Your task to perform on an android device: Do I have any events today? Image 0: 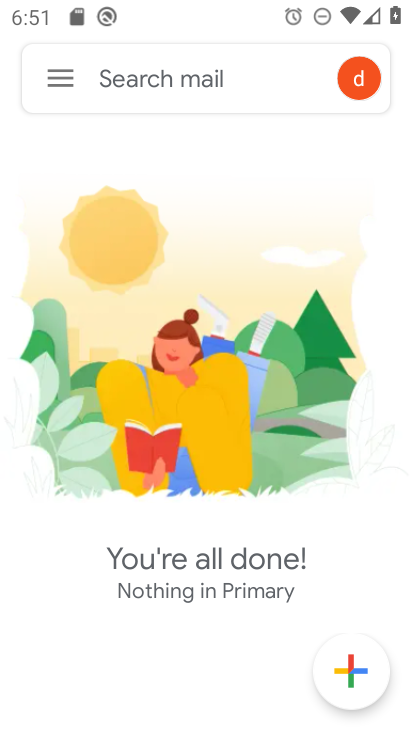
Step 0: press home button
Your task to perform on an android device: Do I have any events today? Image 1: 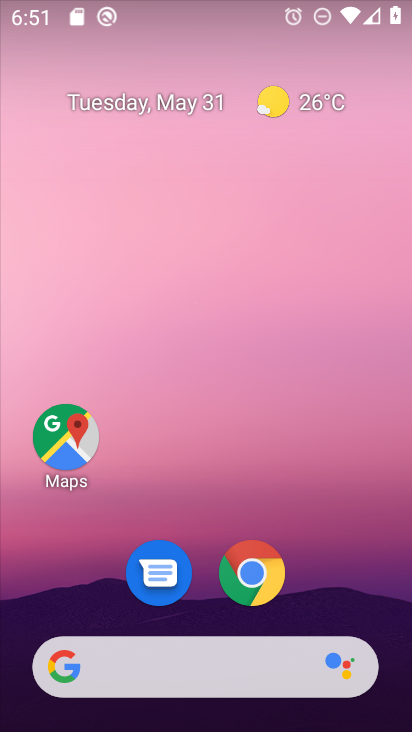
Step 1: drag from (393, 659) to (351, 53)
Your task to perform on an android device: Do I have any events today? Image 2: 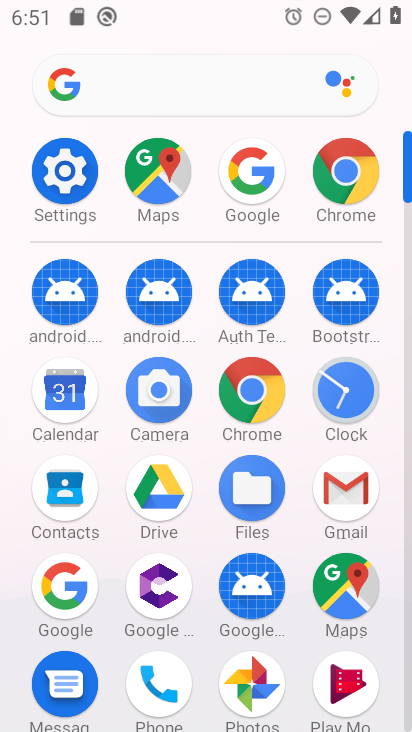
Step 2: click (79, 403)
Your task to perform on an android device: Do I have any events today? Image 3: 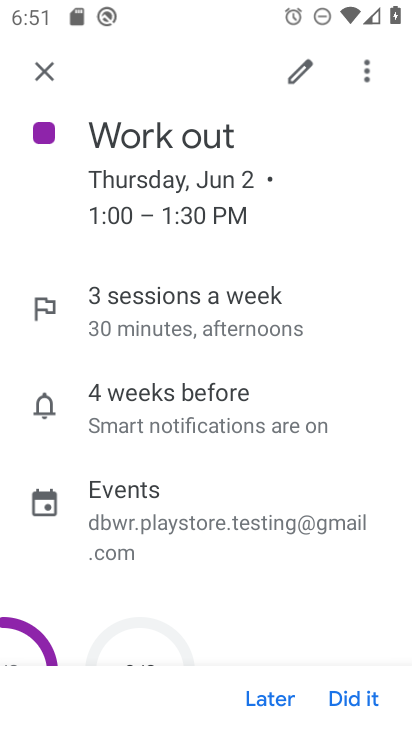
Step 3: press back button
Your task to perform on an android device: Do I have any events today? Image 4: 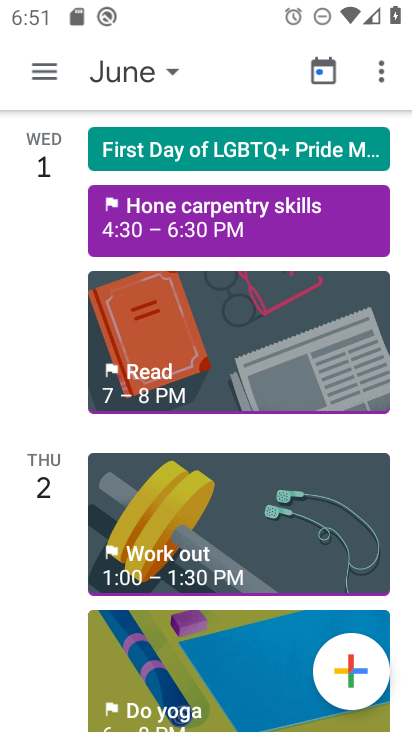
Step 4: click (44, 62)
Your task to perform on an android device: Do I have any events today? Image 5: 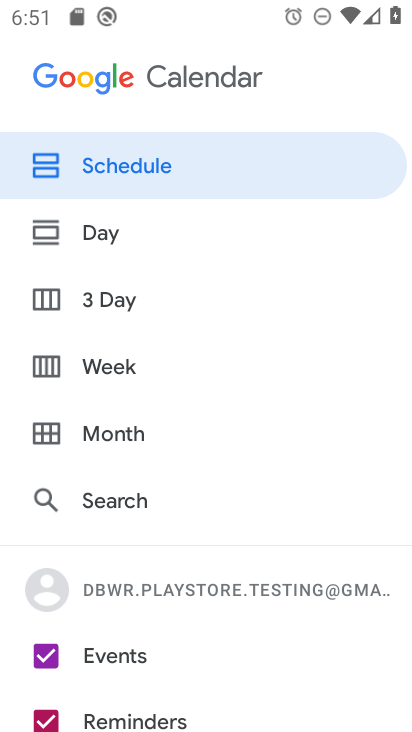
Step 5: press back button
Your task to perform on an android device: Do I have any events today? Image 6: 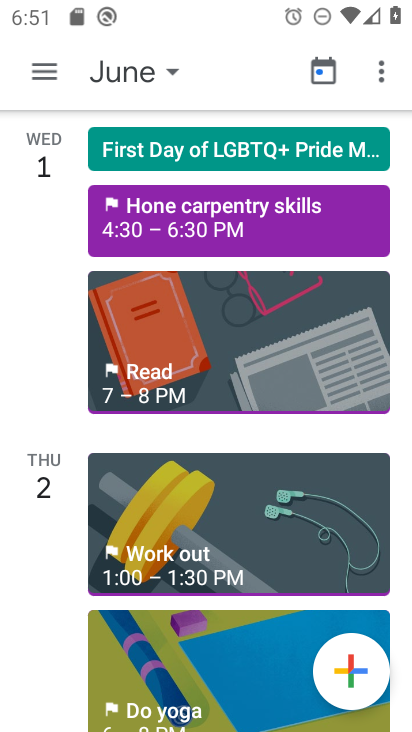
Step 6: click (144, 79)
Your task to perform on an android device: Do I have any events today? Image 7: 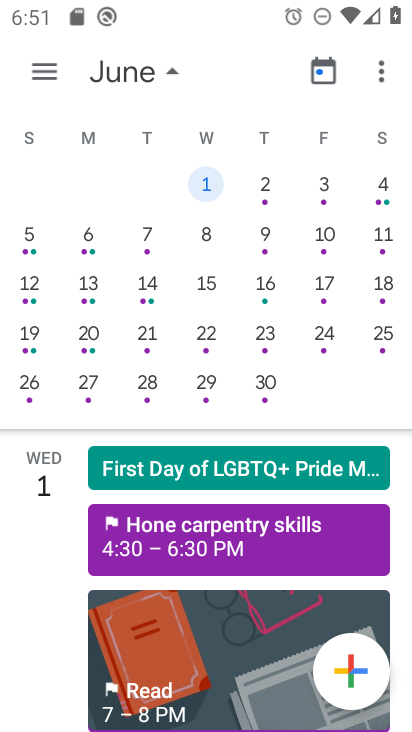
Step 7: click (205, 170)
Your task to perform on an android device: Do I have any events today? Image 8: 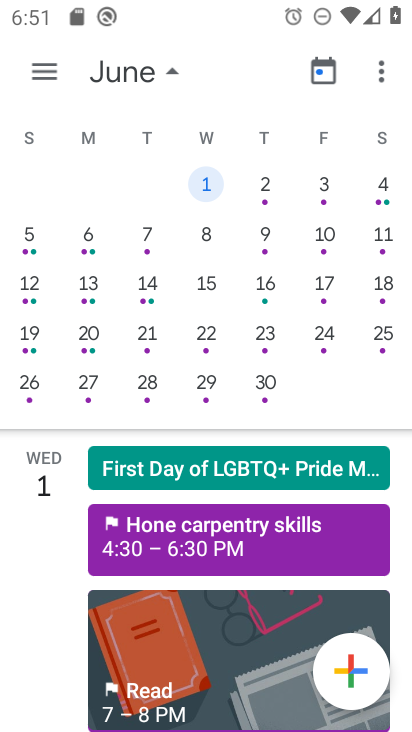
Step 8: click (262, 630)
Your task to perform on an android device: Do I have any events today? Image 9: 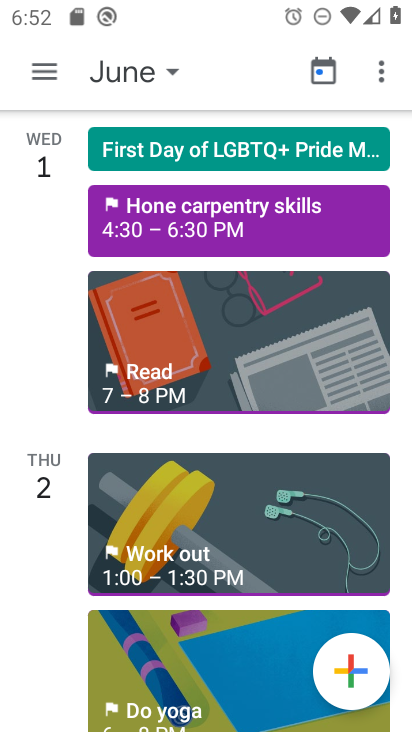
Step 9: click (293, 246)
Your task to perform on an android device: Do I have any events today? Image 10: 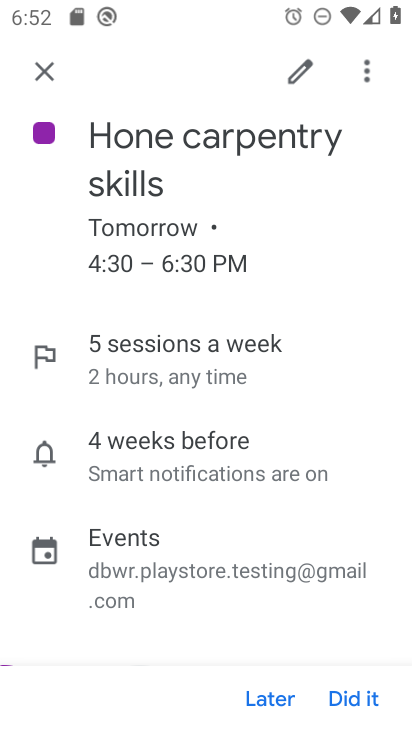
Step 10: task complete